Your task to perform on an android device: Go to Reddit.com Image 0: 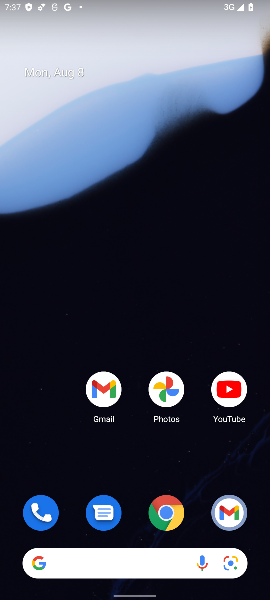
Step 0: click (152, 564)
Your task to perform on an android device: Go to Reddit.com Image 1: 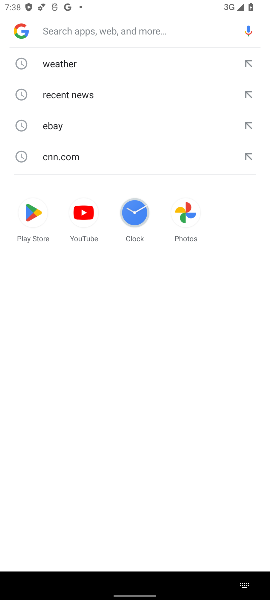
Step 1: type "reddit.com"
Your task to perform on an android device: Go to Reddit.com Image 2: 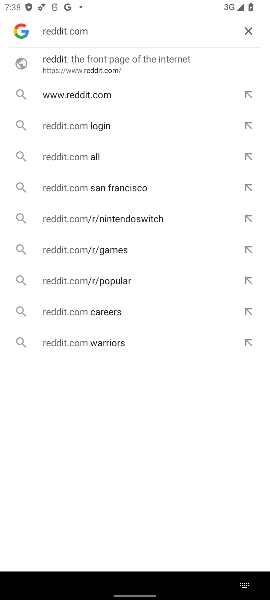
Step 2: click (133, 71)
Your task to perform on an android device: Go to Reddit.com Image 3: 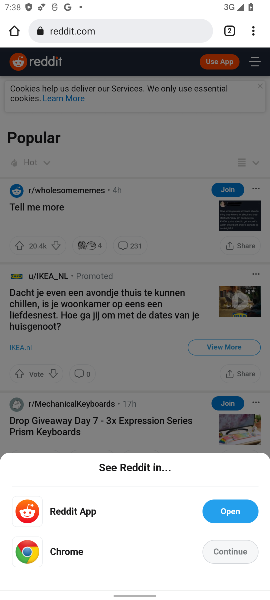
Step 3: task complete